Your task to perform on an android device: Show me productivity apps on the Play Store Image 0: 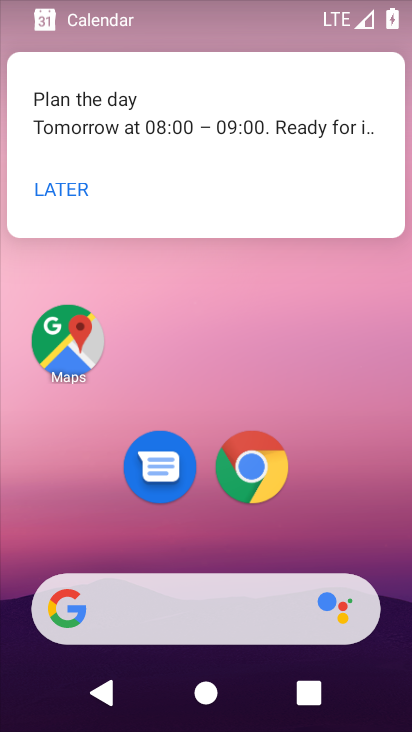
Step 0: drag from (355, 504) to (265, 89)
Your task to perform on an android device: Show me productivity apps on the Play Store Image 1: 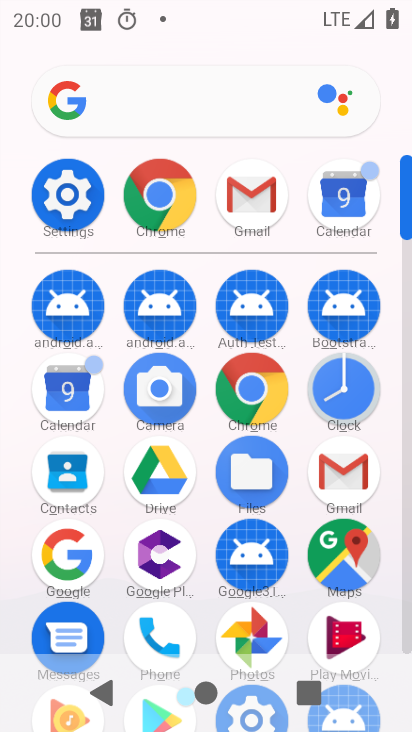
Step 1: drag from (287, 602) to (289, 259)
Your task to perform on an android device: Show me productivity apps on the Play Store Image 2: 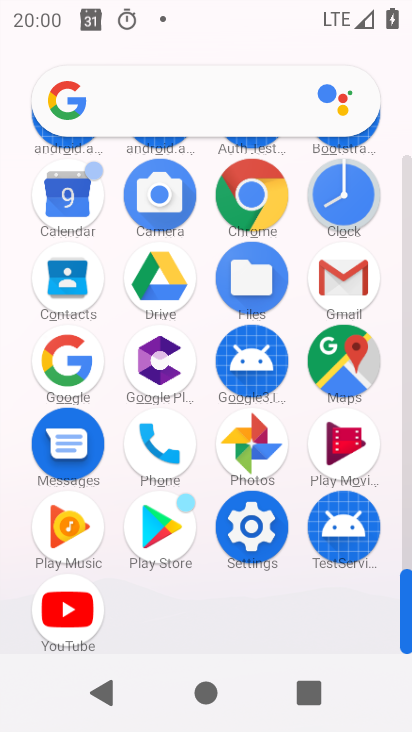
Step 2: click (165, 547)
Your task to perform on an android device: Show me productivity apps on the Play Store Image 3: 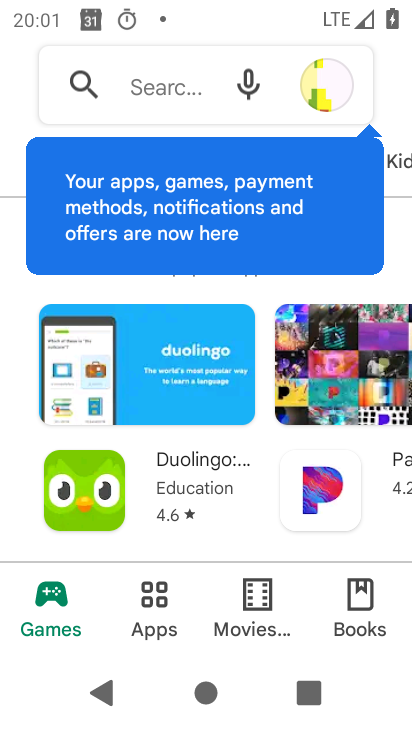
Step 3: click (179, 611)
Your task to perform on an android device: Show me productivity apps on the Play Store Image 4: 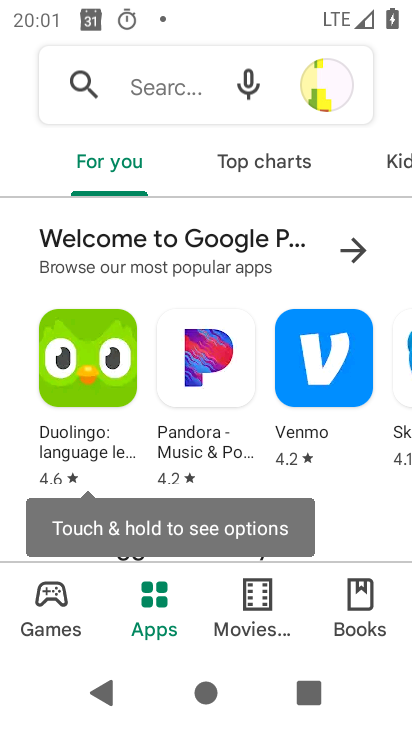
Step 4: task complete